Your task to perform on an android device: empty trash in the gmail app Image 0: 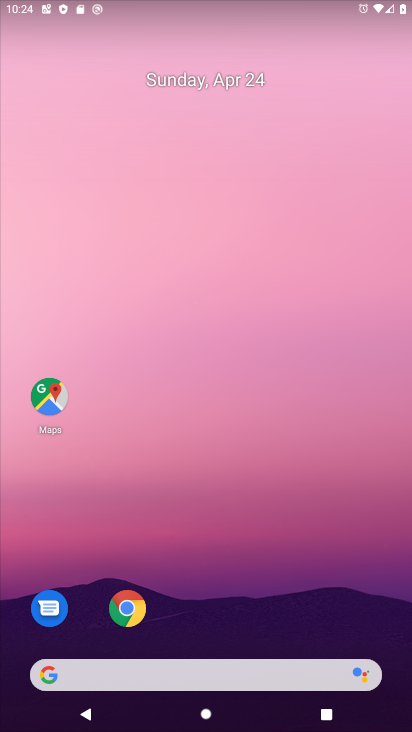
Step 0: drag from (261, 585) to (226, 26)
Your task to perform on an android device: empty trash in the gmail app Image 1: 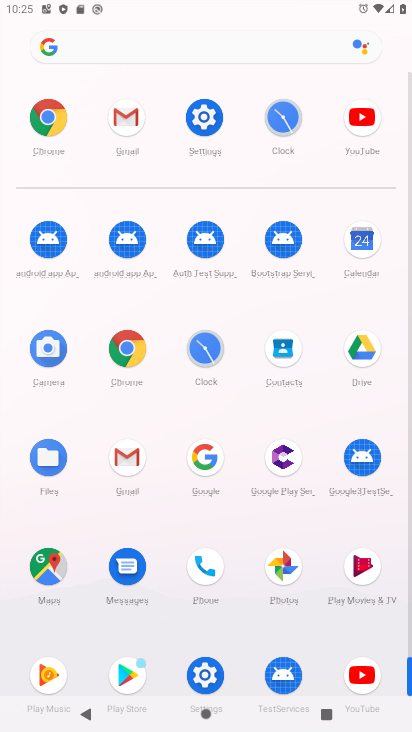
Step 1: drag from (2, 620) to (5, 352)
Your task to perform on an android device: empty trash in the gmail app Image 2: 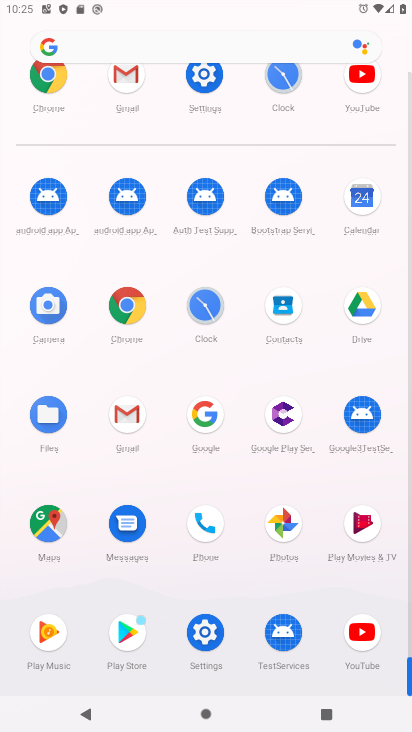
Step 2: click (127, 406)
Your task to perform on an android device: empty trash in the gmail app Image 3: 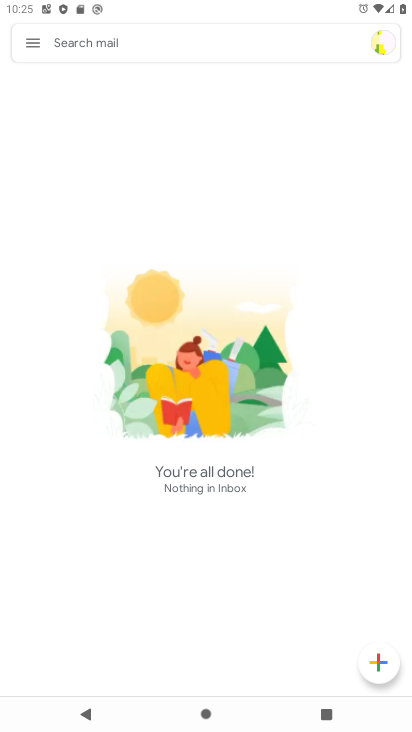
Step 3: click (21, 48)
Your task to perform on an android device: empty trash in the gmail app Image 4: 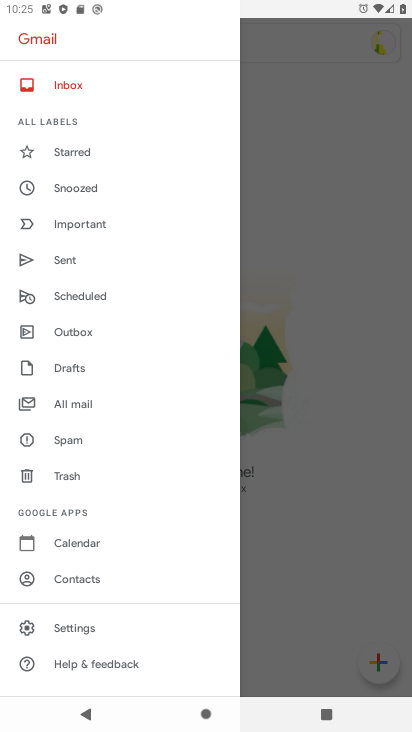
Step 4: drag from (148, 598) to (153, 129)
Your task to perform on an android device: empty trash in the gmail app Image 5: 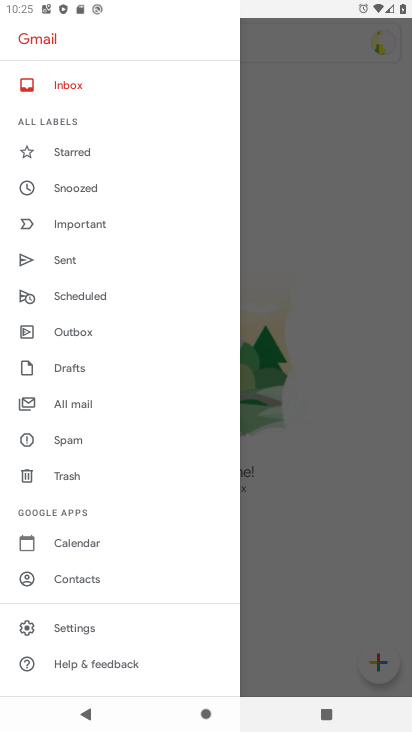
Step 5: drag from (148, 171) to (119, 517)
Your task to perform on an android device: empty trash in the gmail app Image 6: 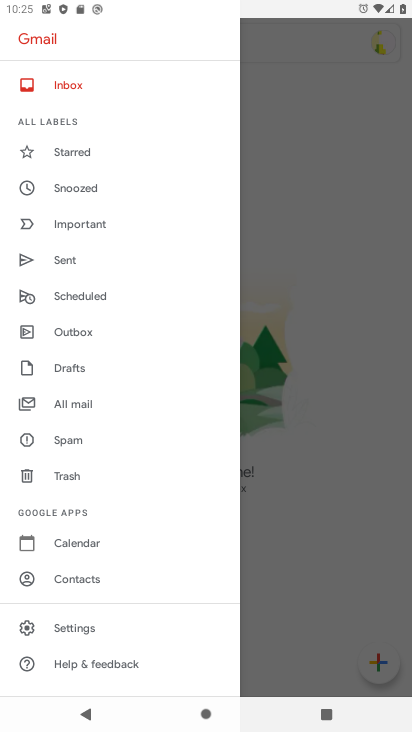
Step 6: drag from (136, 118) to (145, 478)
Your task to perform on an android device: empty trash in the gmail app Image 7: 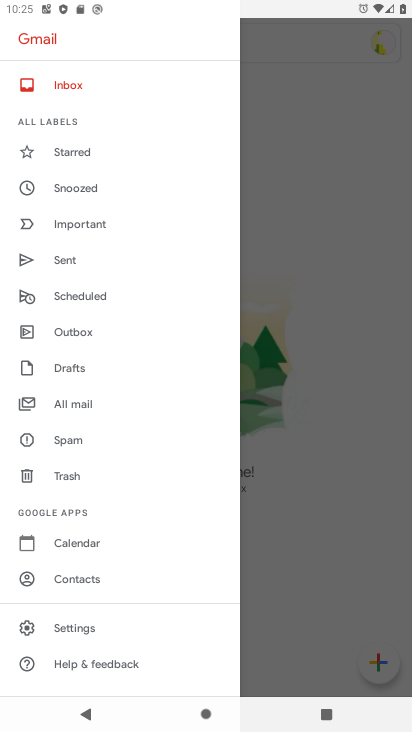
Step 7: click (89, 625)
Your task to perform on an android device: empty trash in the gmail app Image 8: 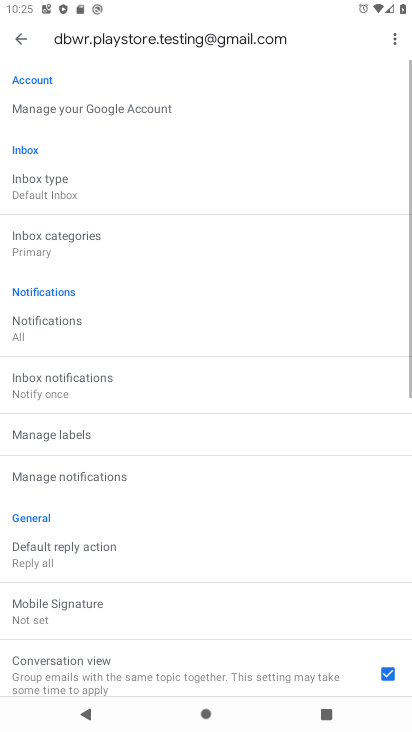
Step 8: click (26, 51)
Your task to perform on an android device: empty trash in the gmail app Image 9: 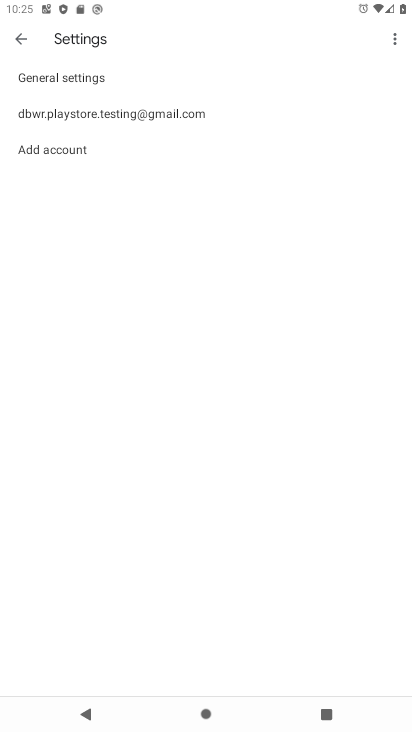
Step 9: click (24, 34)
Your task to perform on an android device: empty trash in the gmail app Image 10: 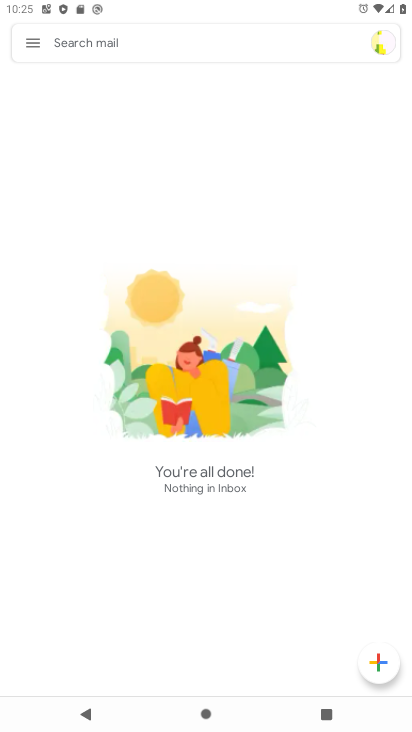
Step 10: click (24, 40)
Your task to perform on an android device: empty trash in the gmail app Image 11: 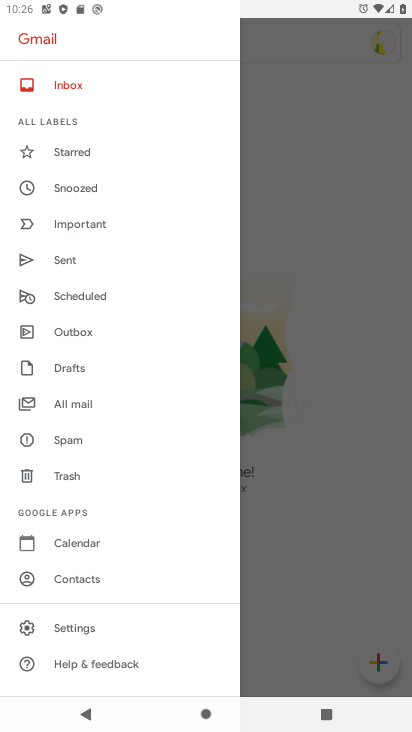
Step 11: click (78, 471)
Your task to perform on an android device: empty trash in the gmail app Image 12: 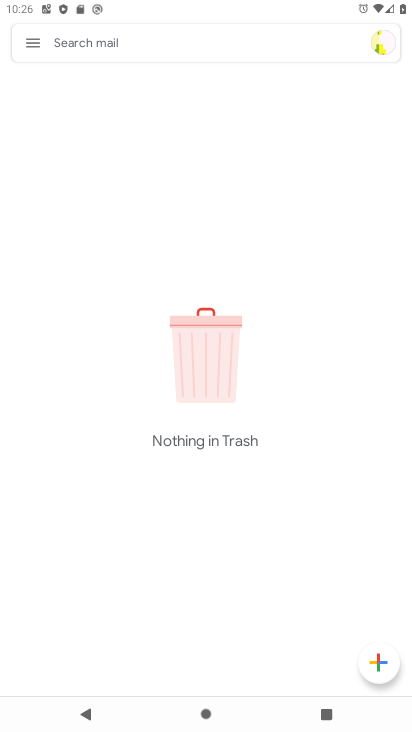
Step 12: task complete